Your task to perform on an android device: turn on improve location accuracy Image 0: 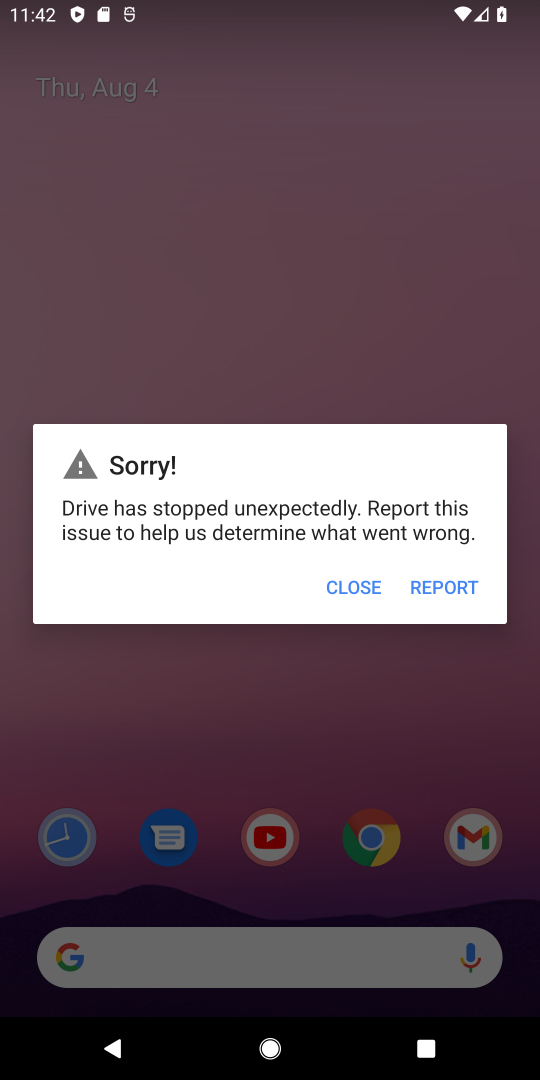
Step 0: click (357, 591)
Your task to perform on an android device: turn on improve location accuracy Image 1: 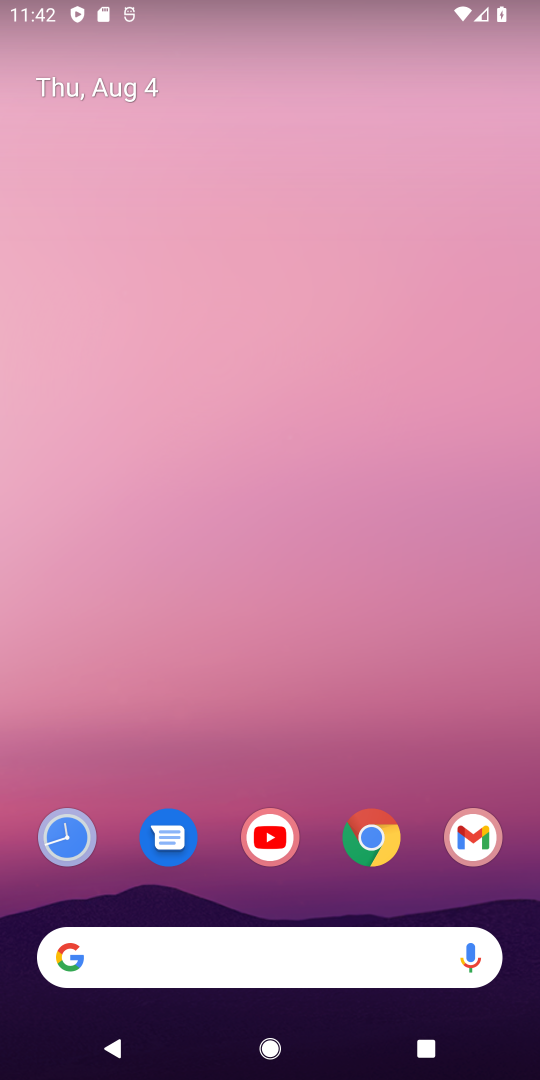
Step 1: drag from (277, 767) to (168, 201)
Your task to perform on an android device: turn on improve location accuracy Image 2: 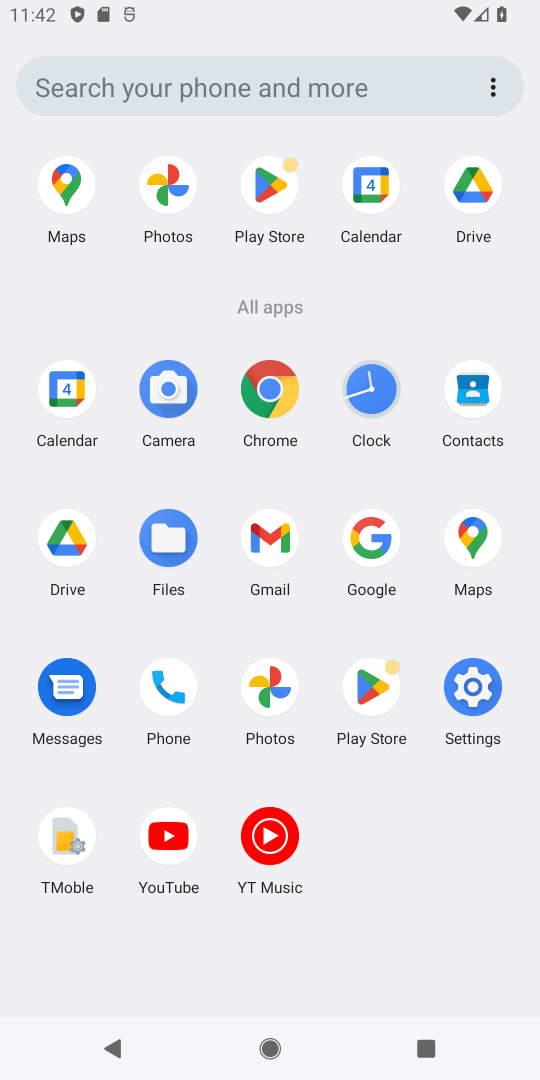
Step 2: click (470, 690)
Your task to perform on an android device: turn on improve location accuracy Image 3: 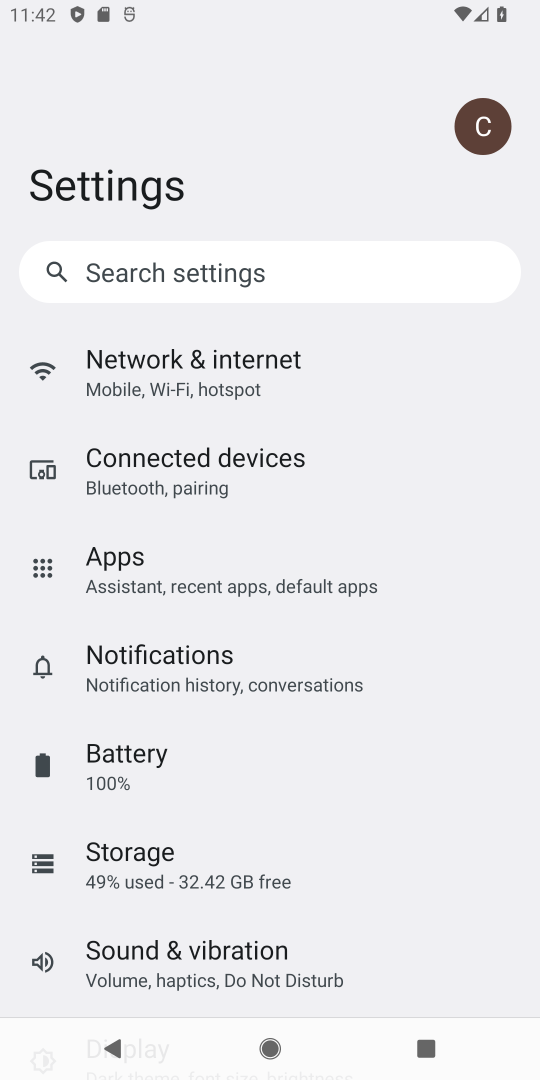
Step 3: drag from (184, 898) to (162, 270)
Your task to perform on an android device: turn on improve location accuracy Image 4: 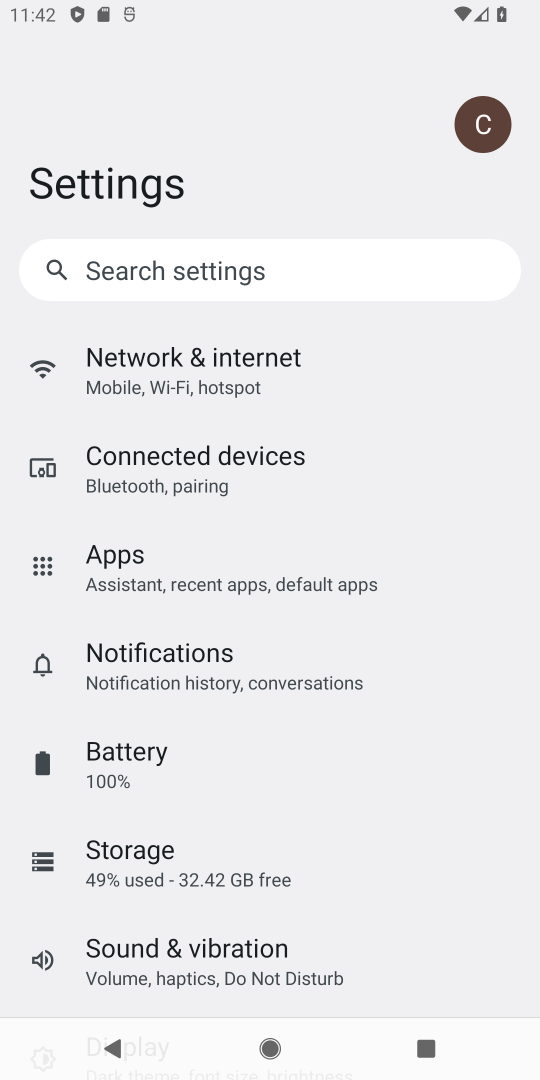
Step 4: drag from (201, 934) to (188, 485)
Your task to perform on an android device: turn on improve location accuracy Image 5: 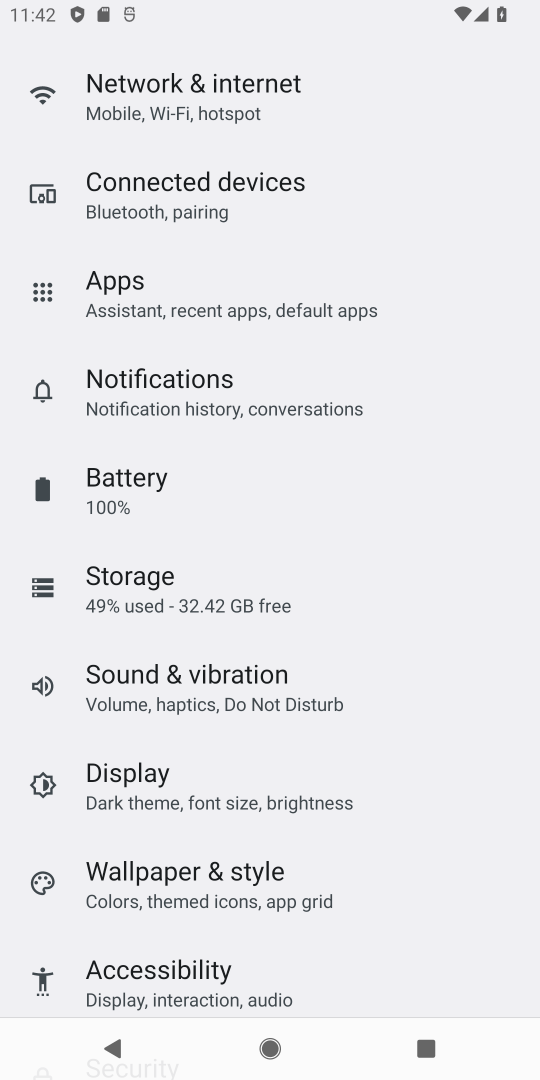
Step 5: drag from (191, 957) to (158, 327)
Your task to perform on an android device: turn on improve location accuracy Image 6: 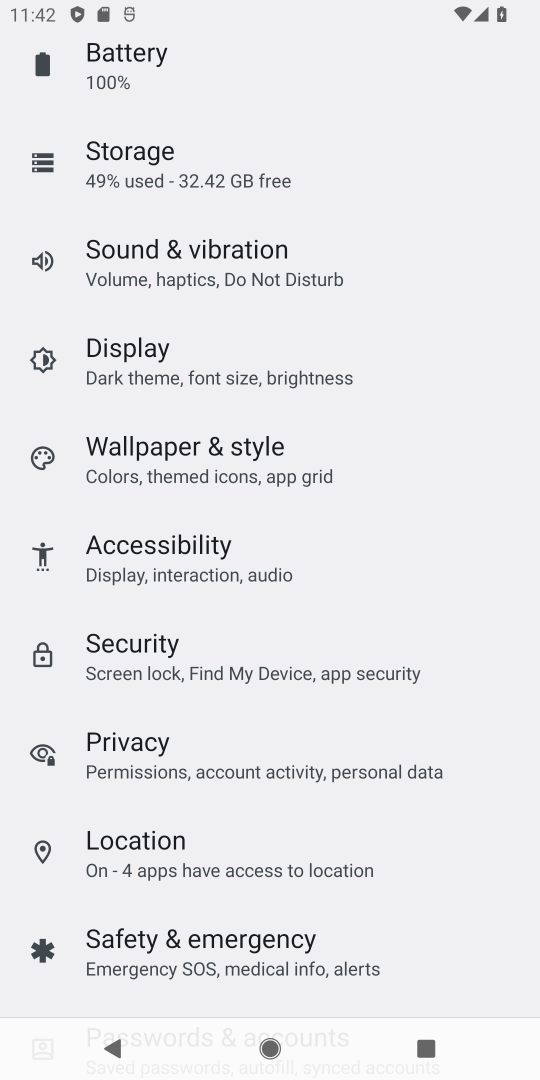
Step 6: click (154, 866)
Your task to perform on an android device: turn on improve location accuracy Image 7: 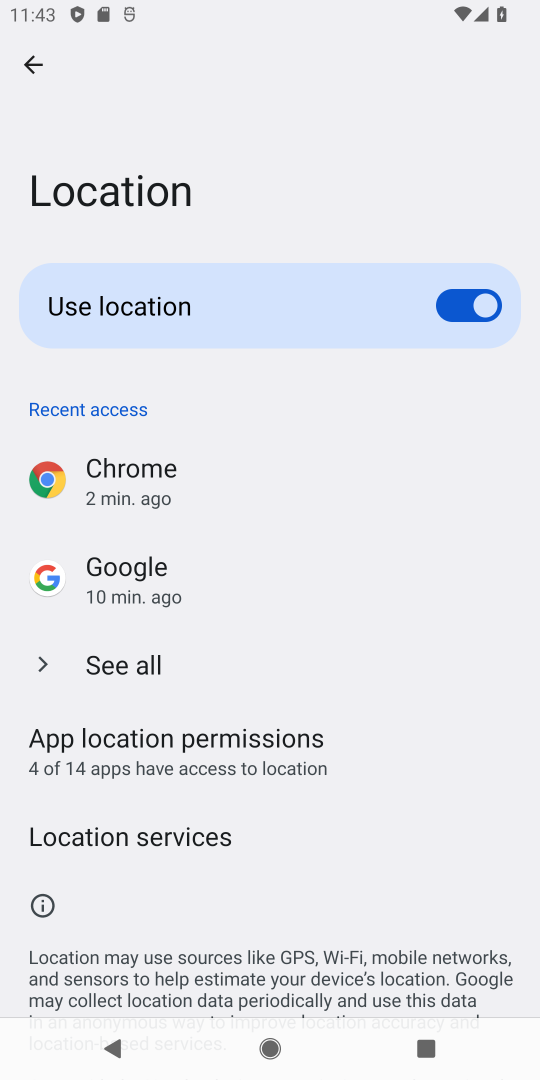
Step 7: click (156, 840)
Your task to perform on an android device: turn on improve location accuracy Image 8: 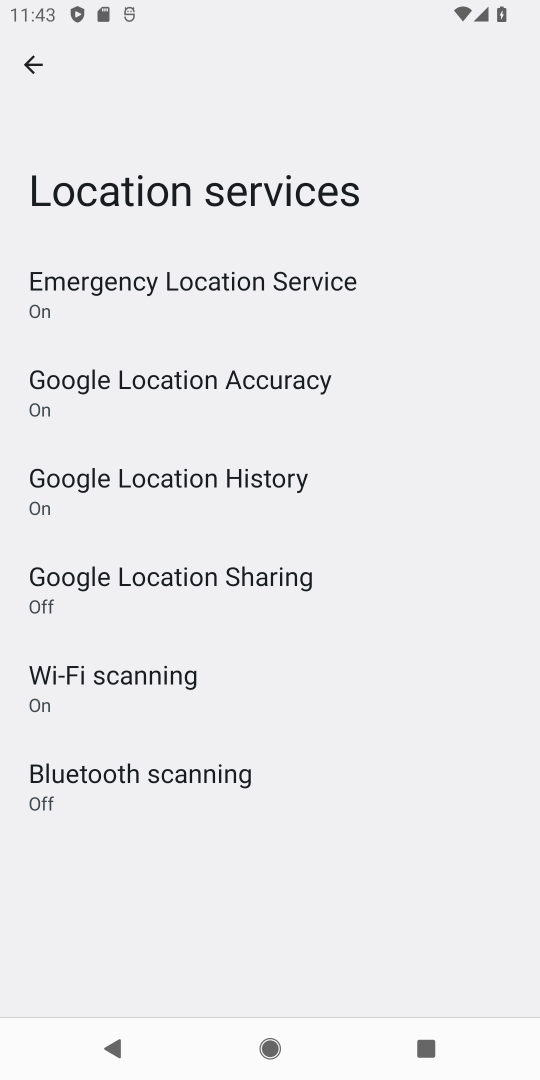
Step 8: click (189, 381)
Your task to perform on an android device: turn on improve location accuracy Image 9: 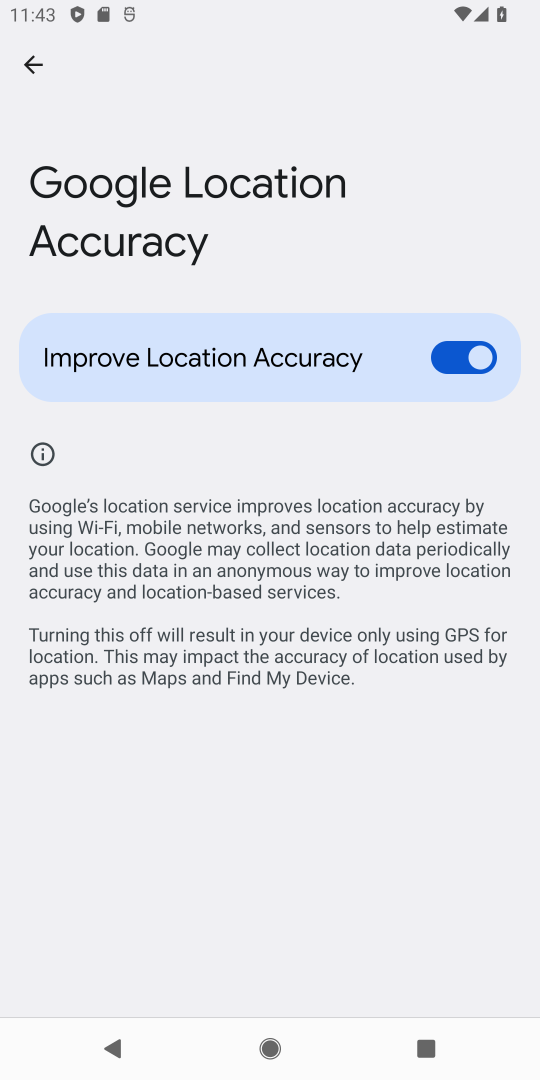
Step 9: task complete